Your task to perform on an android device: Open CNN.com Image 0: 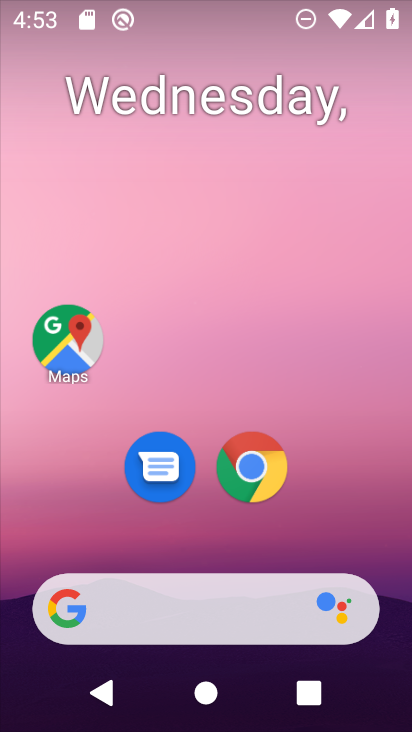
Step 0: click (247, 463)
Your task to perform on an android device: Open CNN.com Image 1: 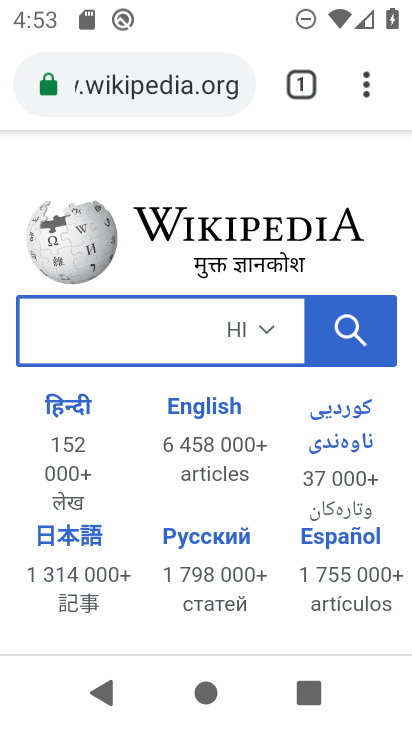
Step 1: click (109, 79)
Your task to perform on an android device: Open CNN.com Image 2: 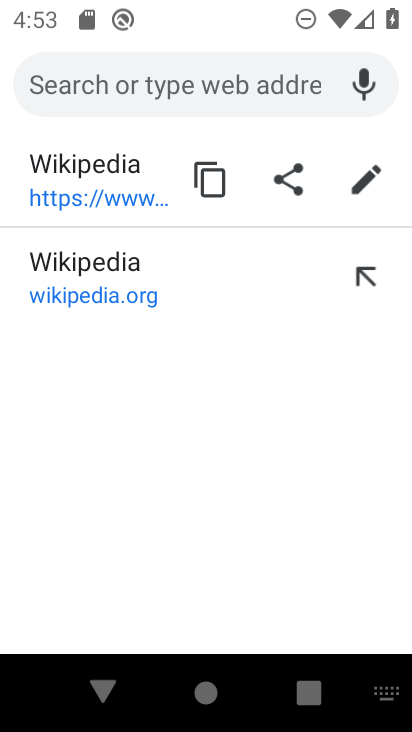
Step 2: type "cnn.com"
Your task to perform on an android device: Open CNN.com Image 3: 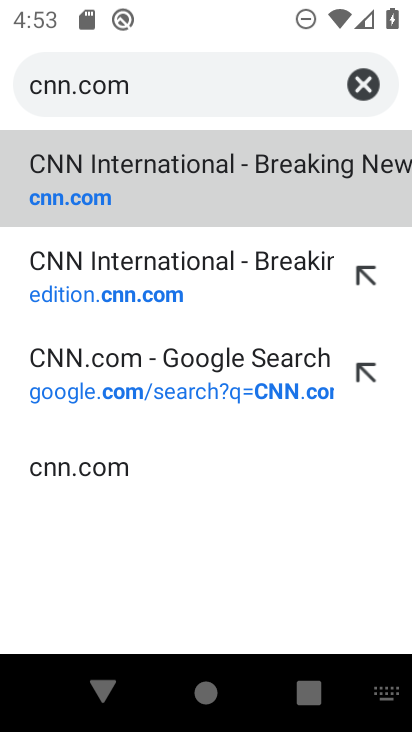
Step 3: click (85, 168)
Your task to perform on an android device: Open CNN.com Image 4: 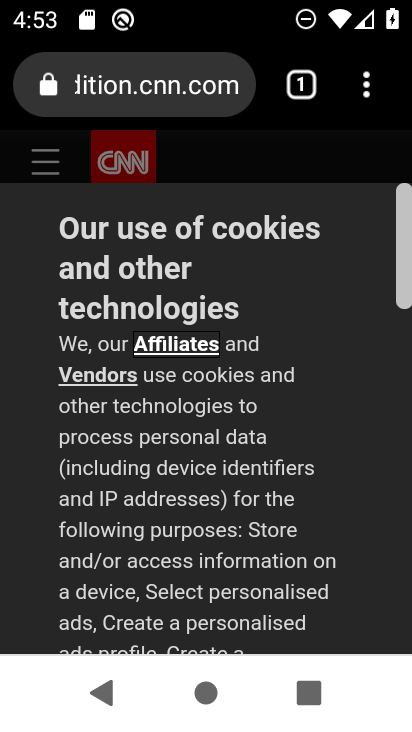
Step 4: task complete